Your task to perform on an android device: Look up the best rated bike on Walmart Image 0: 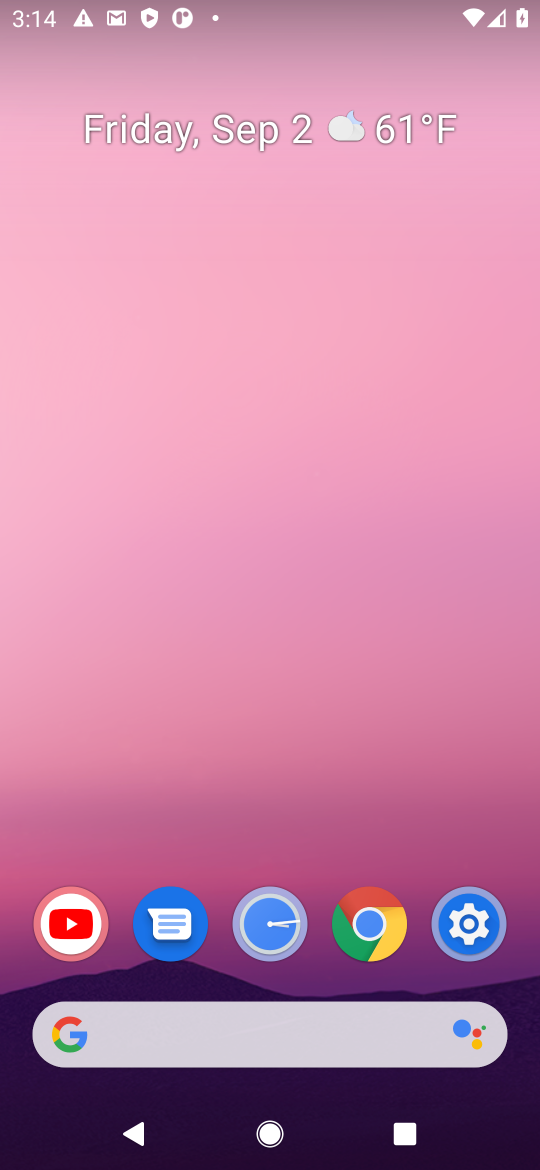
Step 0: click (375, 1038)
Your task to perform on an android device: Look up the best rated bike on Walmart Image 1: 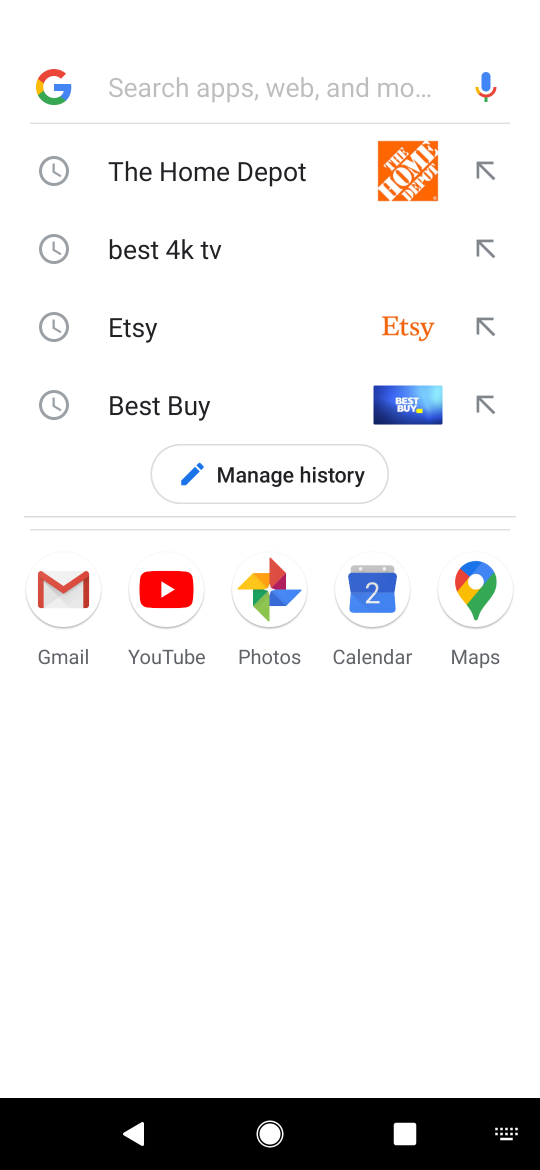
Step 1: press enter
Your task to perform on an android device: Look up the best rated bike on Walmart Image 2: 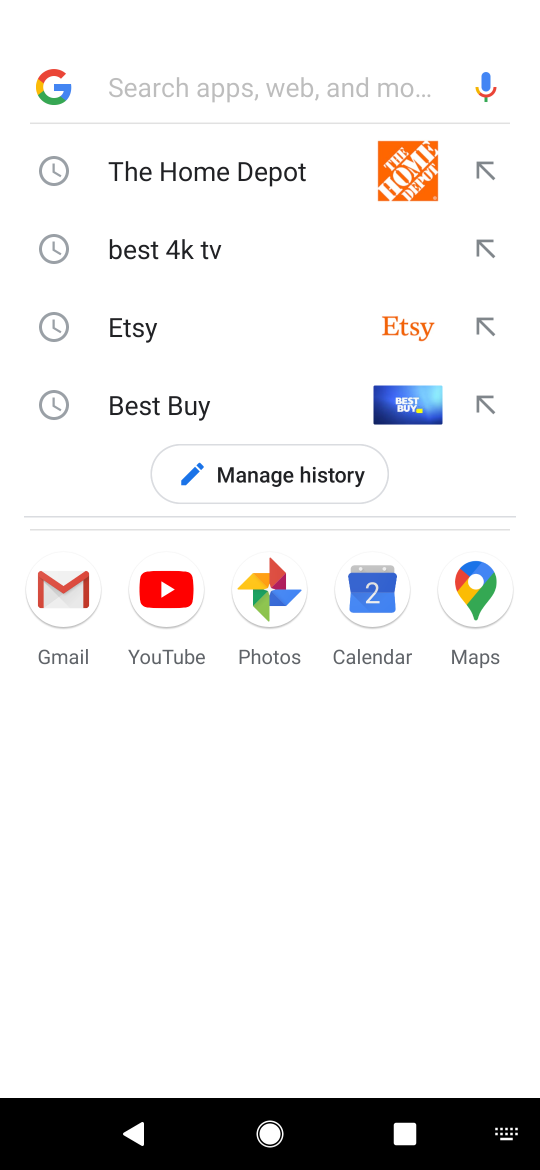
Step 2: type "walmart"
Your task to perform on an android device: Look up the best rated bike on Walmart Image 3: 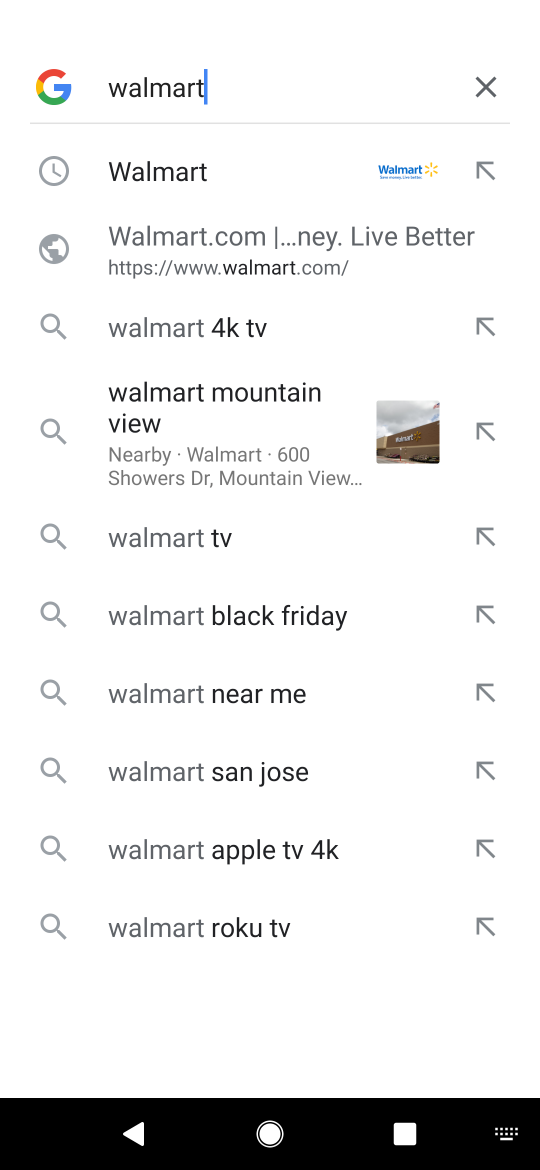
Step 3: click (169, 171)
Your task to perform on an android device: Look up the best rated bike on Walmart Image 4: 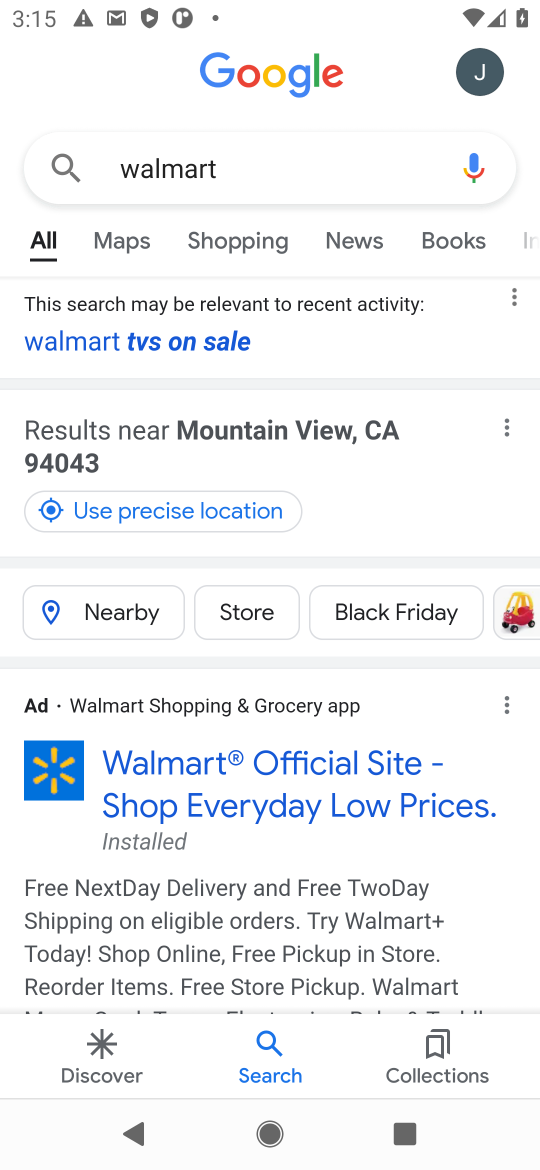
Step 4: click (290, 764)
Your task to perform on an android device: Look up the best rated bike on Walmart Image 5: 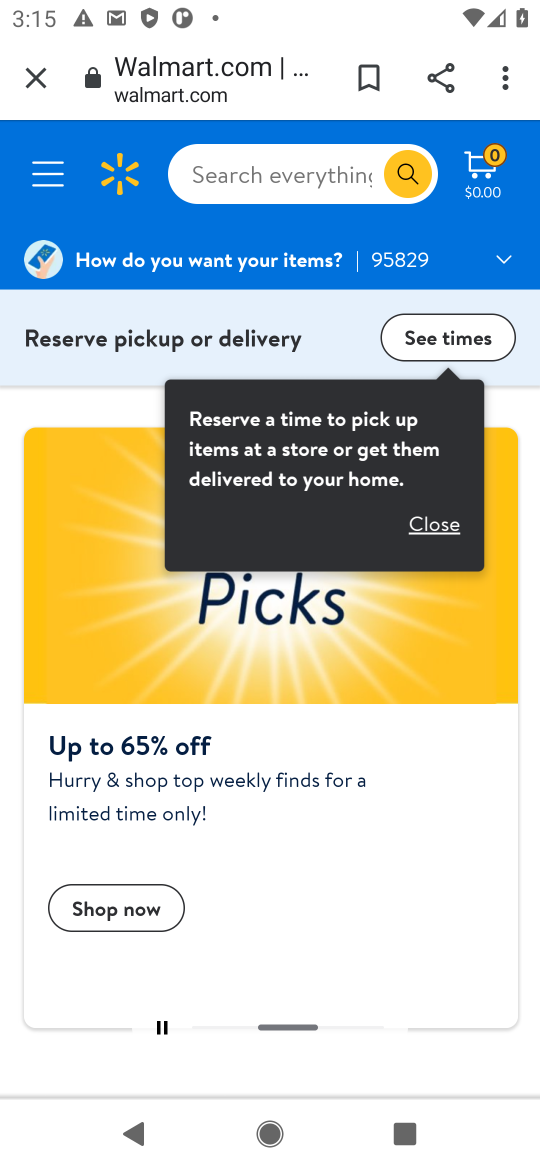
Step 5: click (307, 167)
Your task to perform on an android device: Look up the best rated bike on Walmart Image 6: 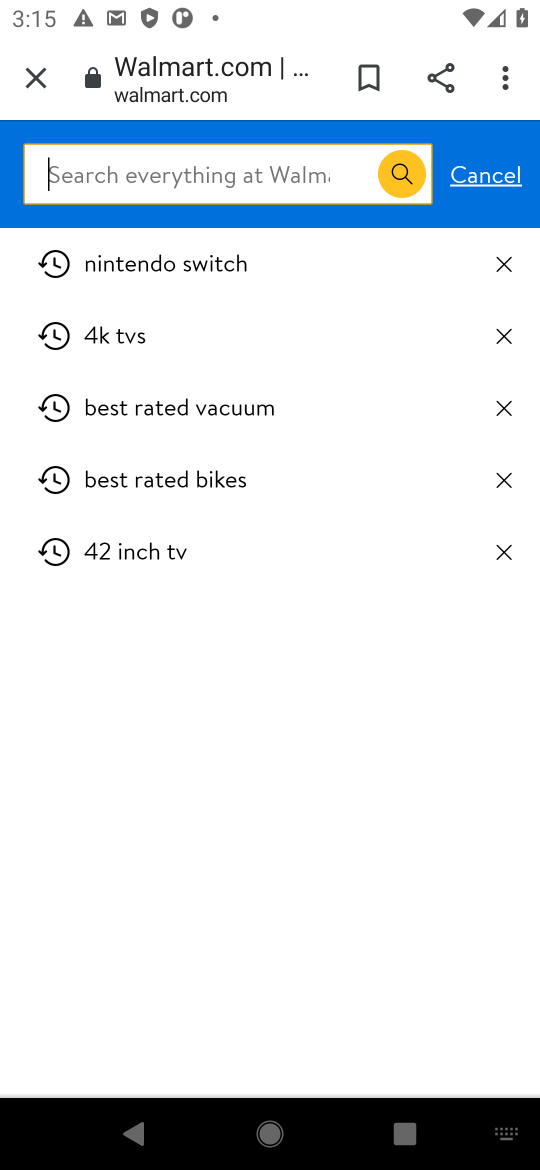
Step 6: type "best rated bike"
Your task to perform on an android device: Look up the best rated bike on Walmart Image 7: 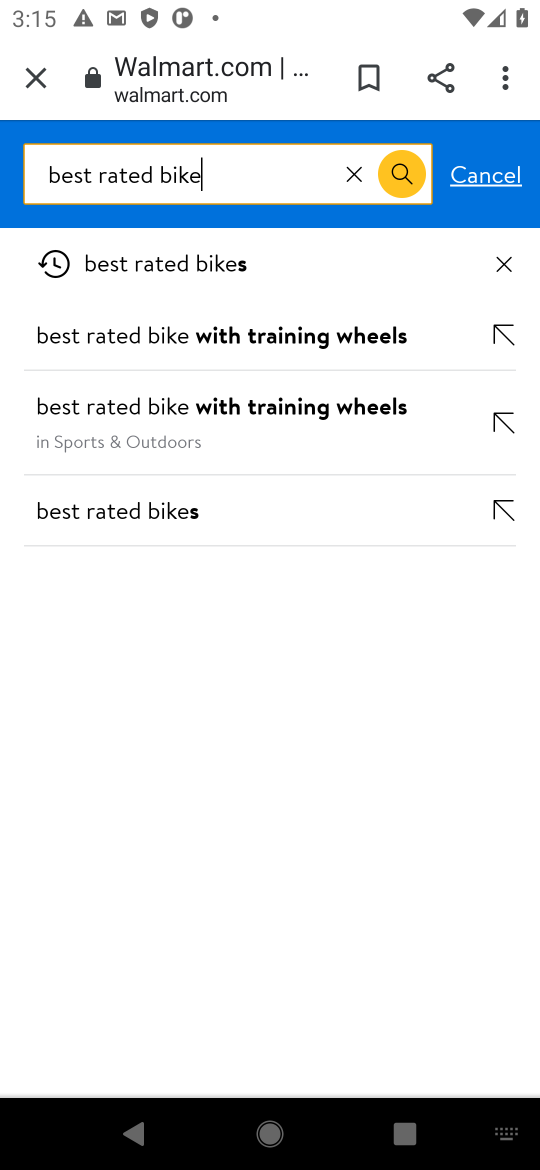
Step 7: click (229, 259)
Your task to perform on an android device: Look up the best rated bike on Walmart Image 8: 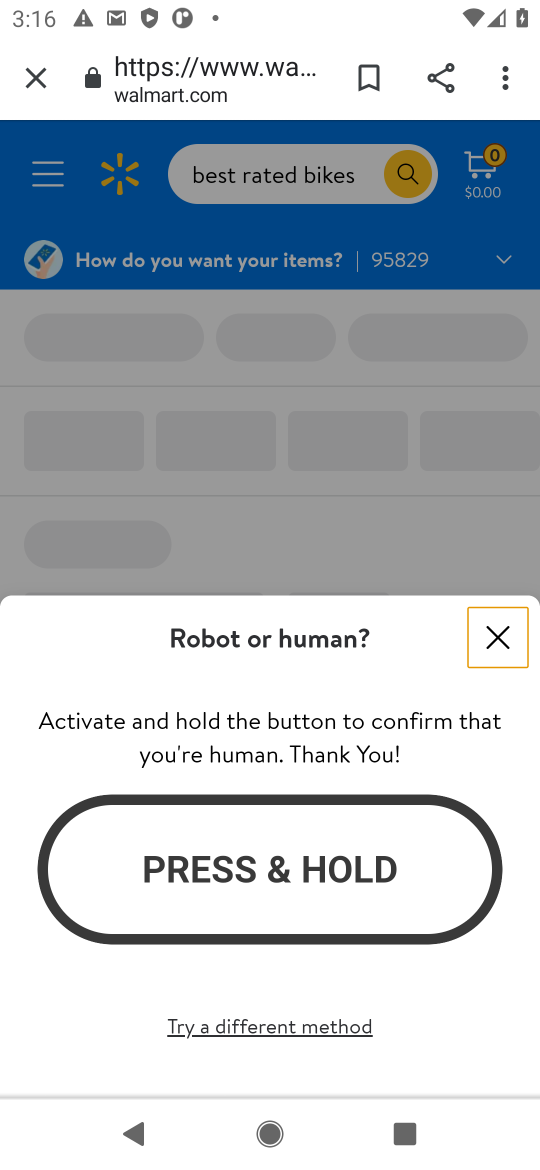
Step 8: click (490, 632)
Your task to perform on an android device: Look up the best rated bike on Walmart Image 9: 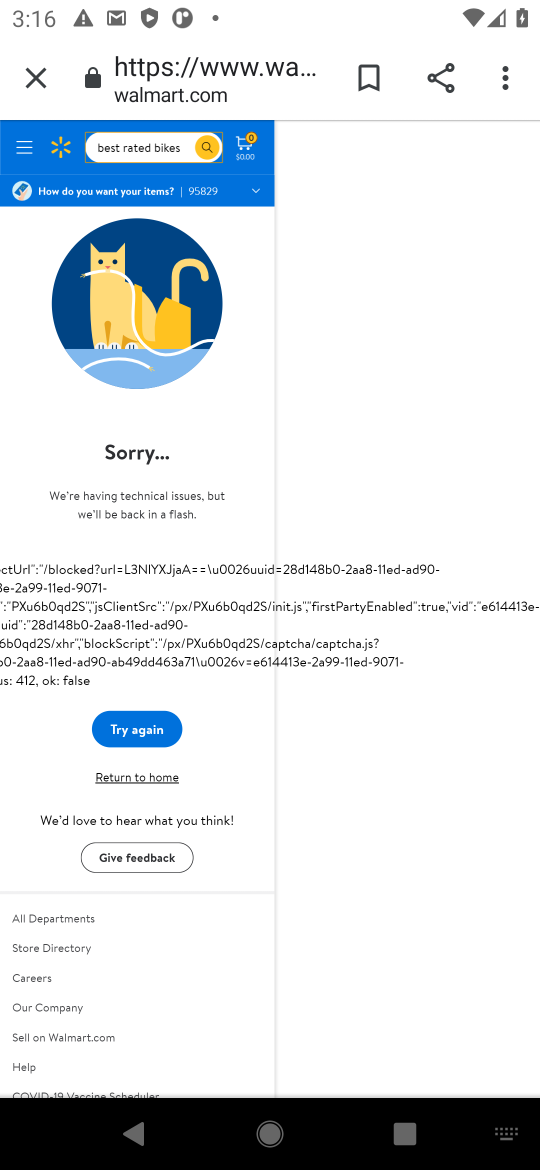
Step 9: task complete